Your task to perform on an android device: Go to accessibility settings Image 0: 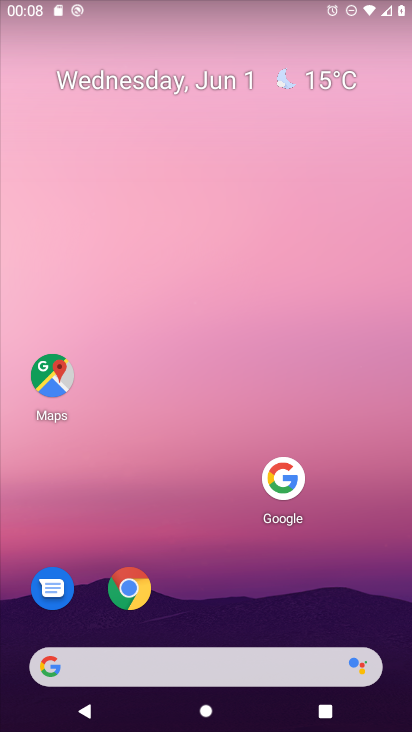
Step 0: press home button
Your task to perform on an android device: Go to accessibility settings Image 1: 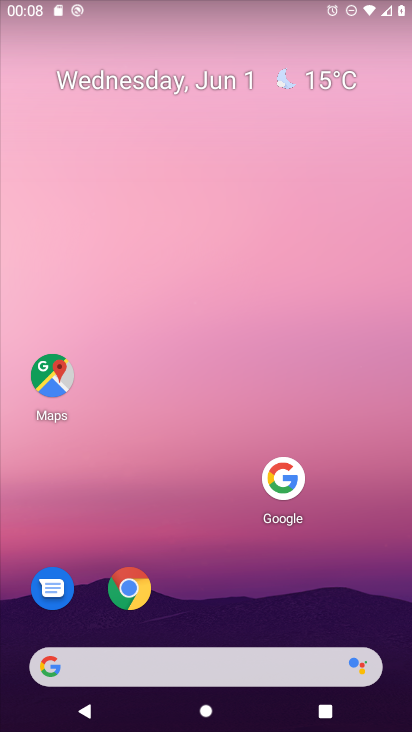
Step 1: drag from (167, 597) to (325, 17)
Your task to perform on an android device: Go to accessibility settings Image 2: 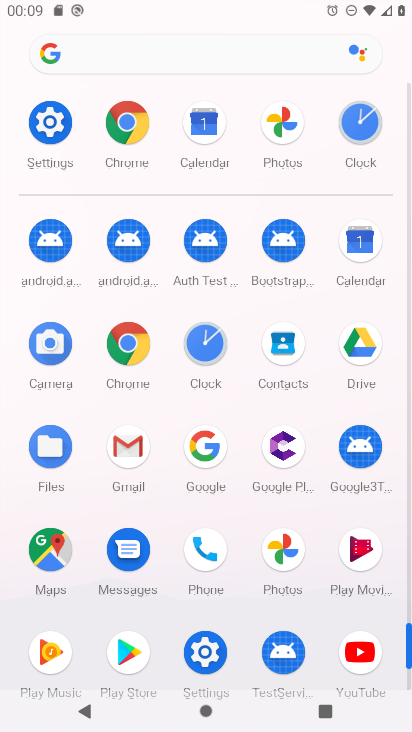
Step 2: click (48, 126)
Your task to perform on an android device: Go to accessibility settings Image 3: 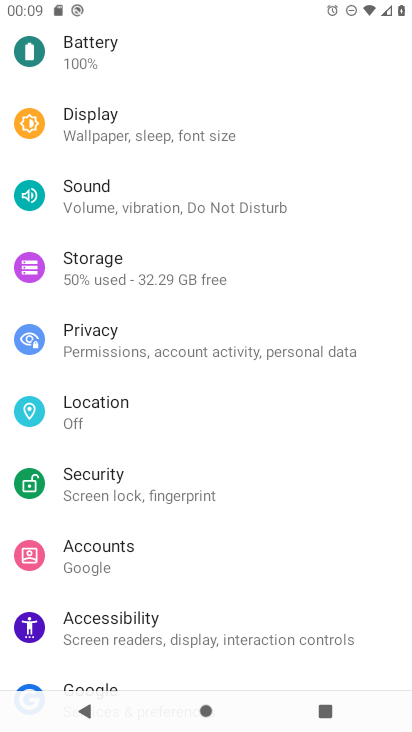
Step 3: click (142, 620)
Your task to perform on an android device: Go to accessibility settings Image 4: 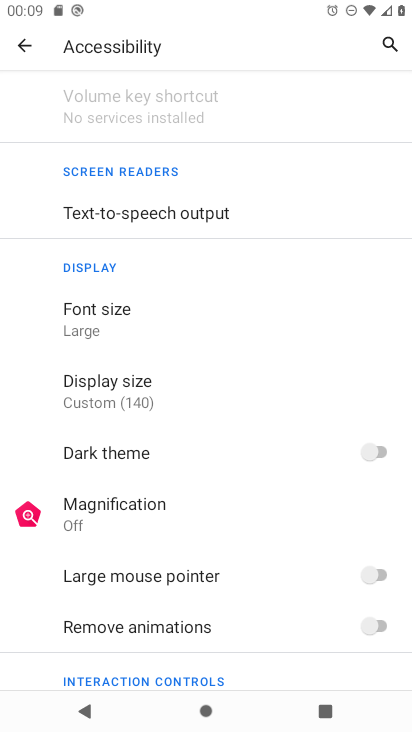
Step 4: task complete